Your task to perform on an android device: change alarm snooze length Image 0: 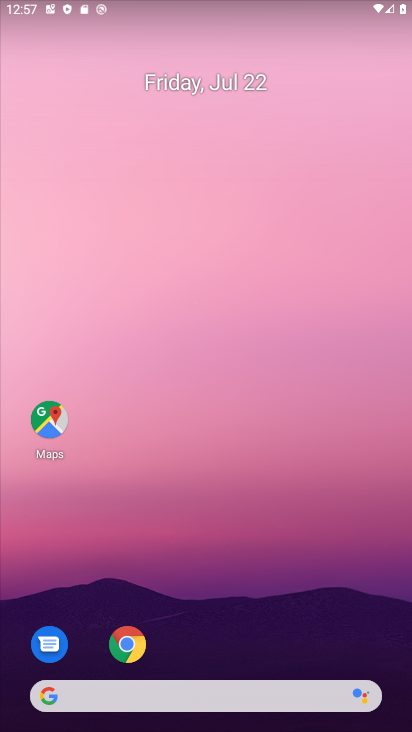
Step 0: press home button
Your task to perform on an android device: change alarm snooze length Image 1: 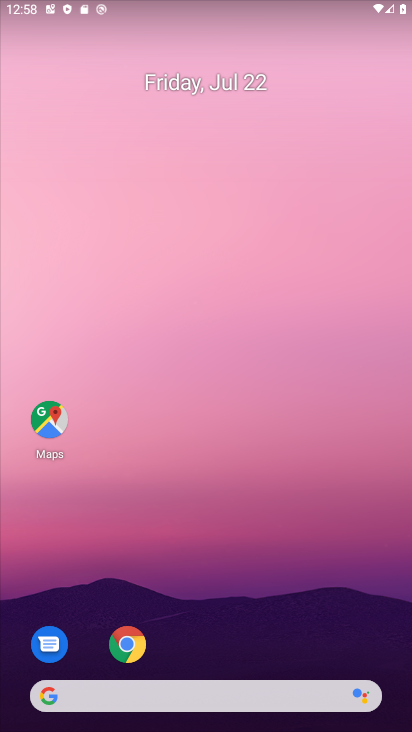
Step 1: drag from (210, 655) to (142, 100)
Your task to perform on an android device: change alarm snooze length Image 2: 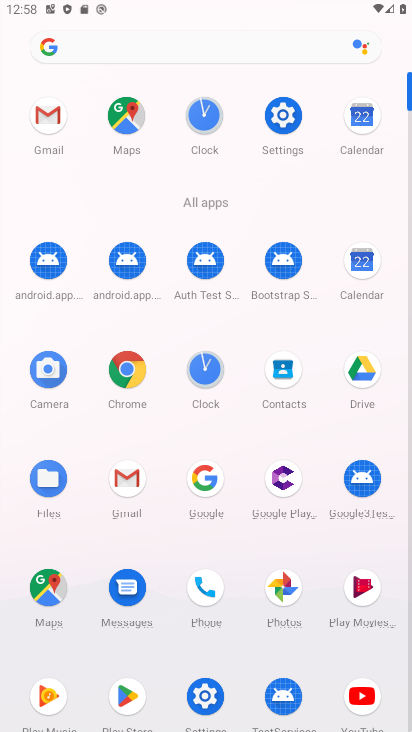
Step 2: click (203, 104)
Your task to perform on an android device: change alarm snooze length Image 3: 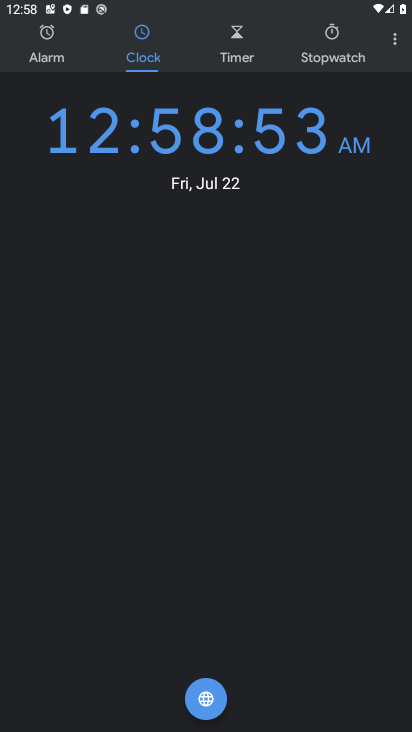
Step 3: click (397, 37)
Your task to perform on an android device: change alarm snooze length Image 4: 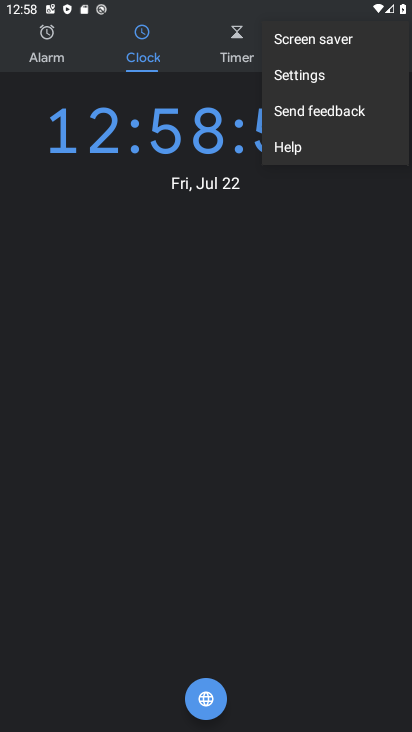
Step 4: click (323, 75)
Your task to perform on an android device: change alarm snooze length Image 5: 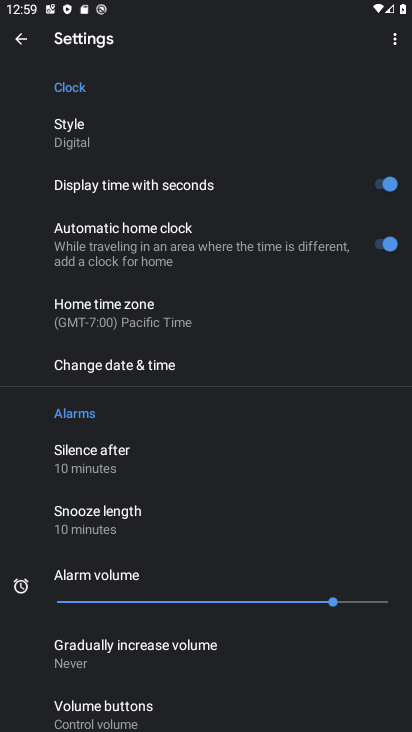
Step 5: click (159, 520)
Your task to perform on an android device: change alarm snooze length Image 6: 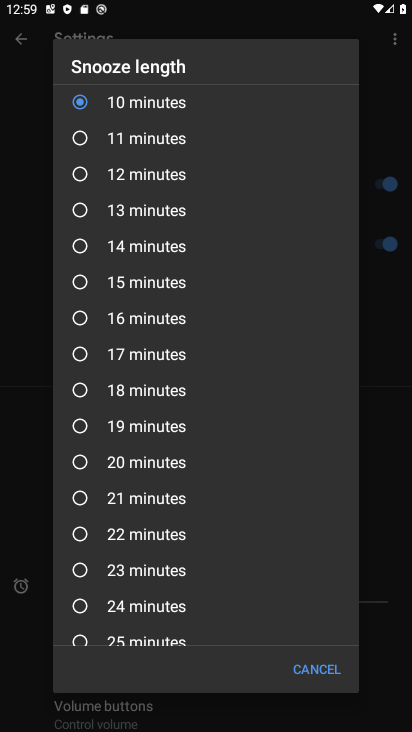
Step 6: drag from (110, 143) to (128, 510)
Your task to perform on an android device: change alarm snooze length Image 7: 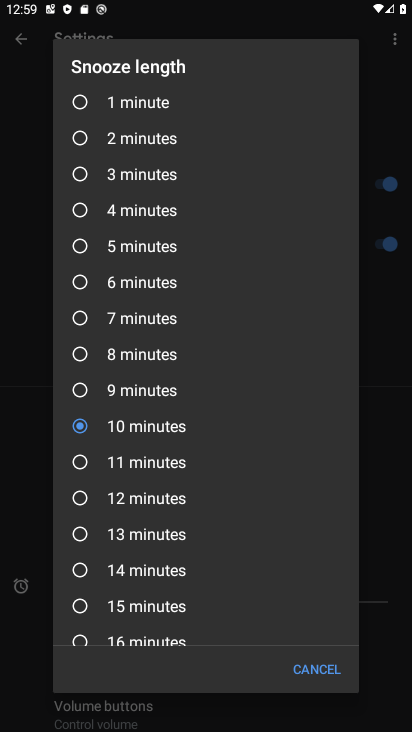
Step 7: click (79, 246)
Your task to perform on an android device: change alarm snooze length Image 8: 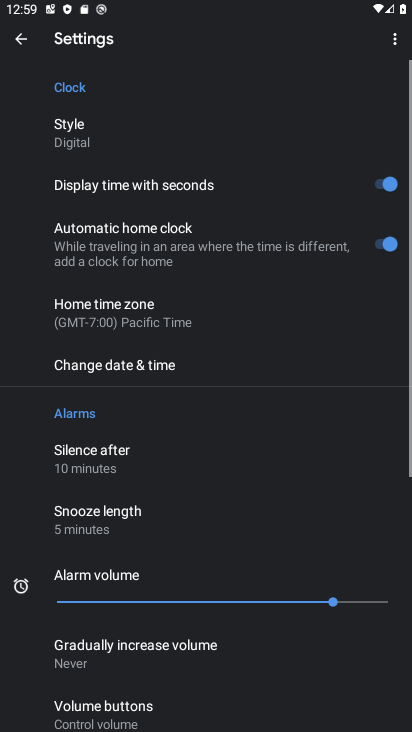
Step 8: task complete